Your task to perform on an android device: open wifi settings Image 0: 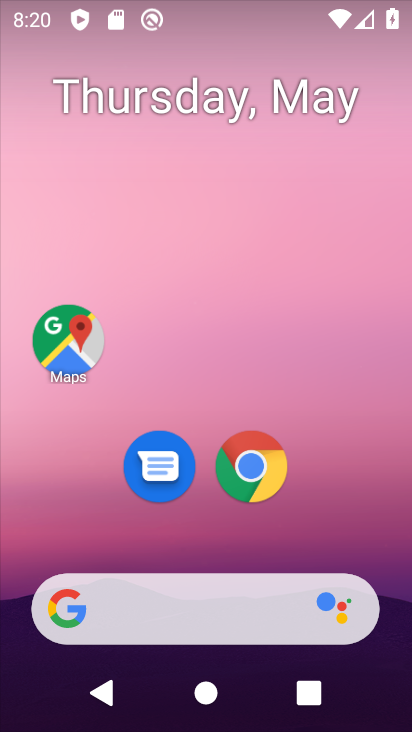
Step 0: drag from (384, 565) to (295, 194)
Your task to perform on an android device: open wifi settings Image 1: 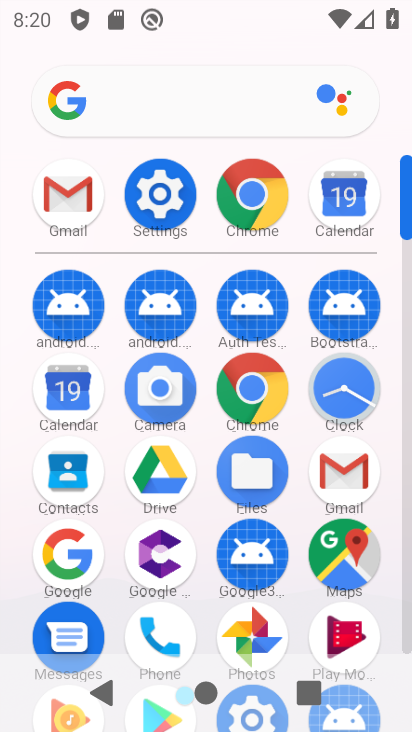
Step 1: click (182, 201)
Your task to perform on an android device: open wifi settings Image 2: 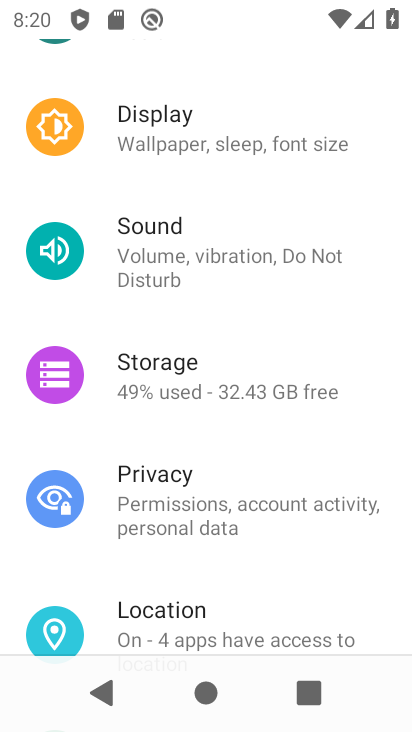
Step 2: drag from (239, 161) to (222, 588)
Your task to perform on an android device: open wifi settings Image 3: 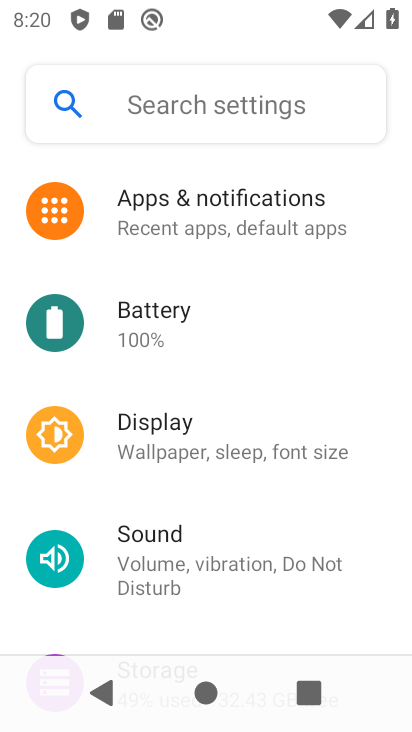
Step 3: drag from (221, 256) to (257, 585)
Your task to perform on an android device: open wifi settings Image 4: 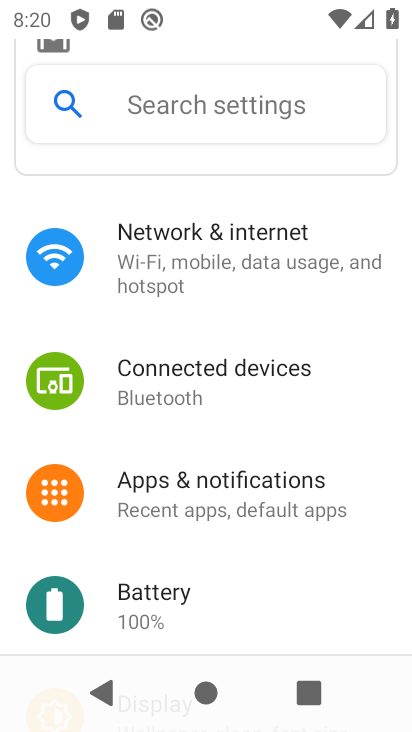
Step 4: click (283, 240)
Your task to perform on an android device: open wifi settings Image 5: 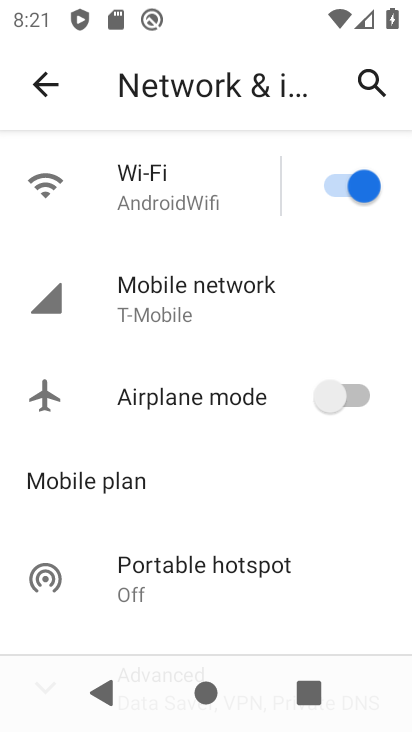
Step 5: click (212, 201)
Your task to perform on an android device: open wifi settings Image 6: 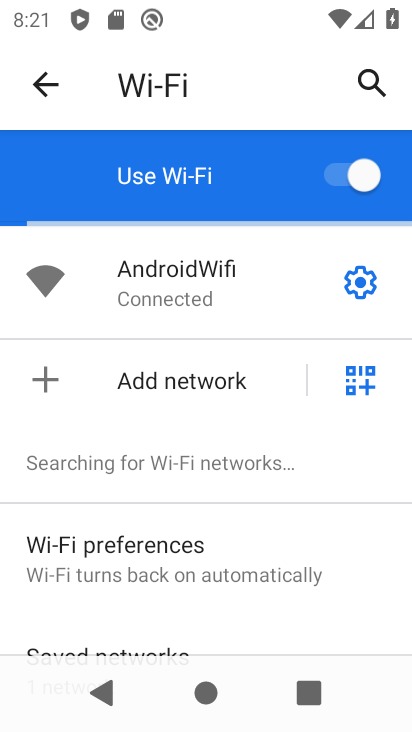
Step 6: task complete